Your task to perform on an android device: Open calendar and show me the first week of next month Image 0: 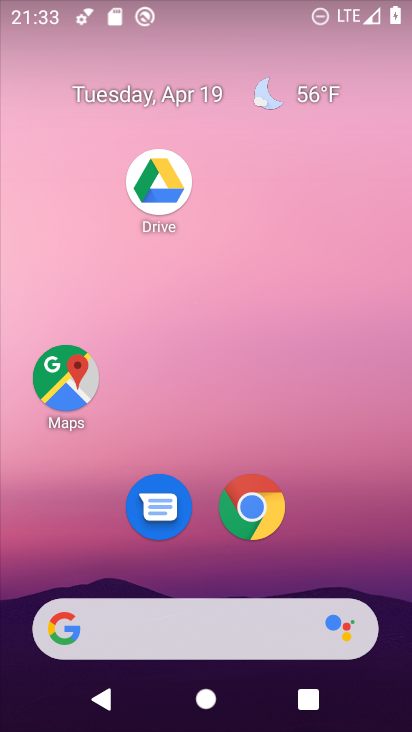
Step 0: drag from (344, 517) to (337, 146)
Your task to perform on an android device: Open calendar and show me the first week of next month Image 1: 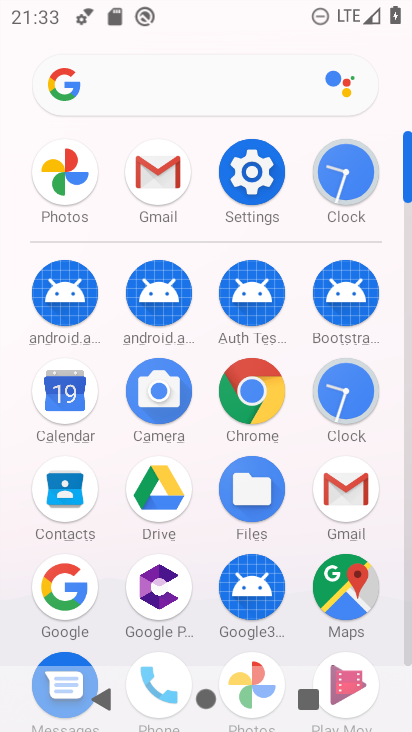
Step 1: click (73, 392)
Your task to perform on an android device: Open calendar and show me the first week of next month Image 2: 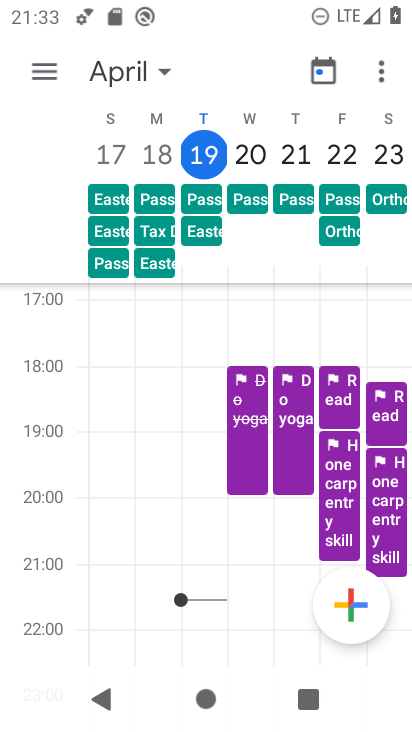
Step 2: task complete